Your task to perform on an android device: find photos in the google photos app Image 0: 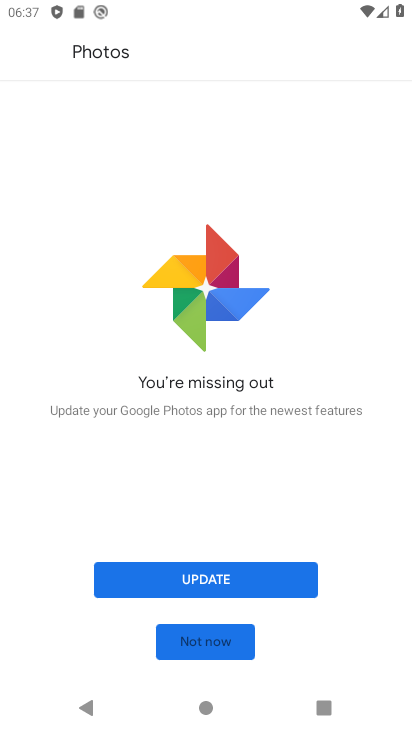
Step 0: click (182, 578)
Your task to perform on an android device: find photos in the google photos app Image 1: 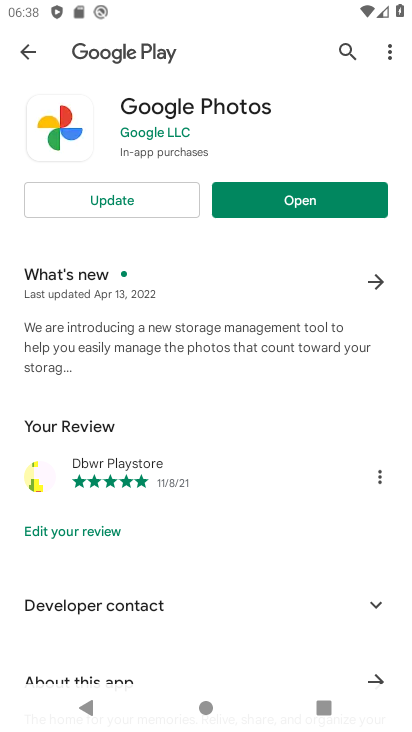
Step 1: click (129, 198)
Your task to perform on an android device: find photos in the google photos app Image 2: 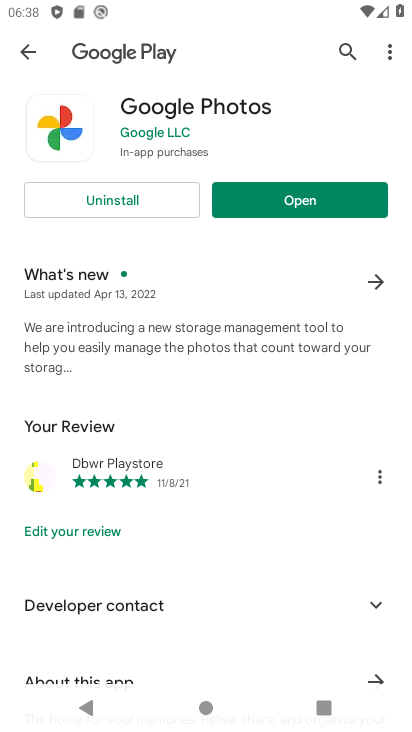
Step 2: click (275, 183)
Your task to perform on an android device: find photos in the google photos app Image 3: 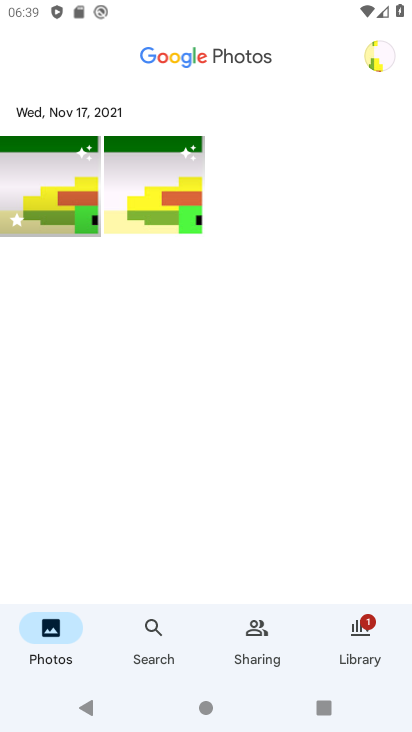
Step 3: click (32, 195)
Your task to perform on an android device: find photos in the google photos app Image 4: 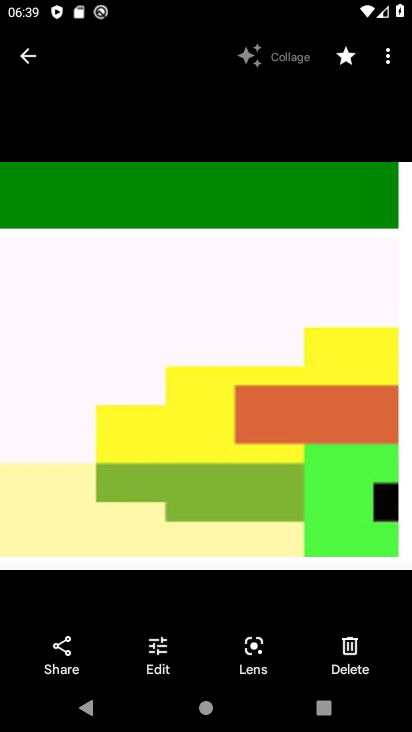
Step 4: task complete